Your task to perform on an android device: Go to Wikipedia Image 0: 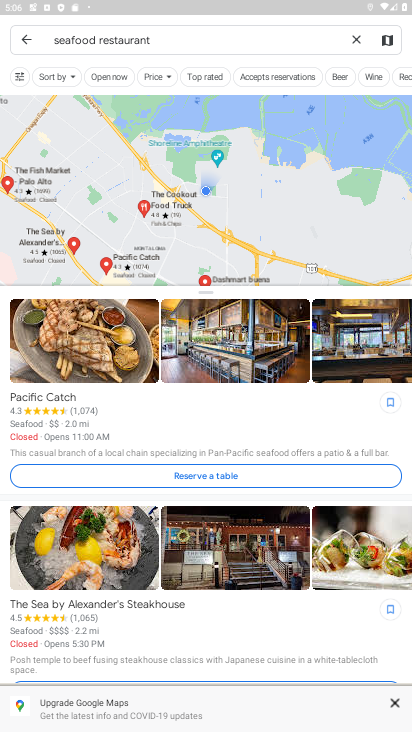
Step 0: press home button
Your task to perform on an android device: Go to Wikipedia Image 1: 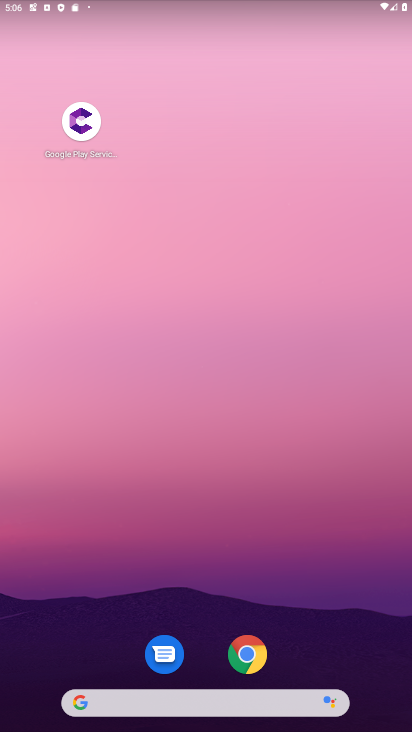
Step 1: click (243, 646)
Your task to perform on an android device: Go to Wikipedia Image 2: 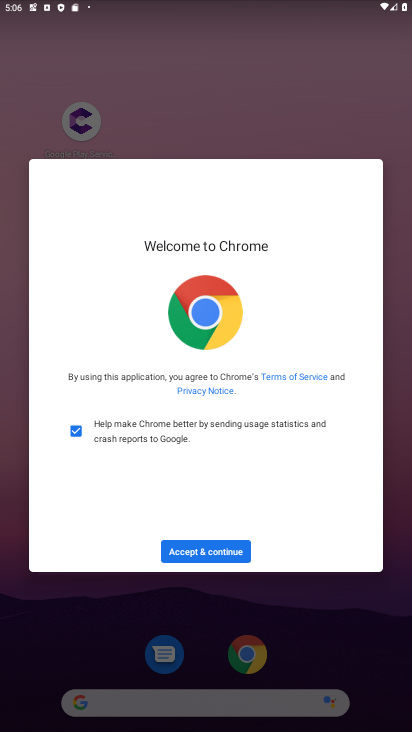
Step 2: click (200, 556)
Your task to perform on an android device: Go to Wikipedia Image 3: 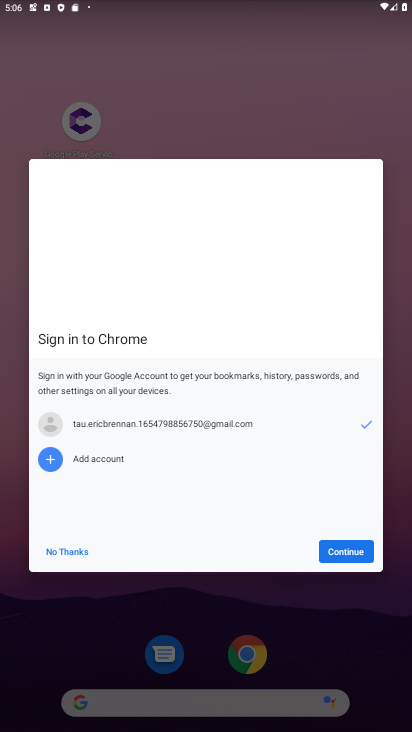
Step 3: click (354, 557)
Your task to perform on an android device: Go to Wikipedia Image 4: 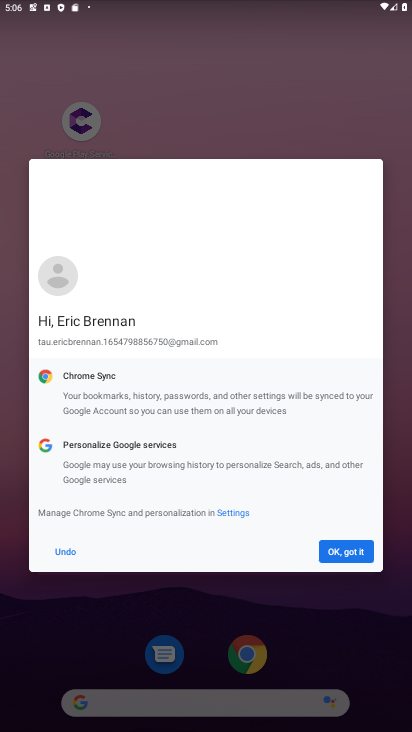
Step 4: click (354, 557)
Your task to perform on an android device: Go to Wikipedia Image 5: 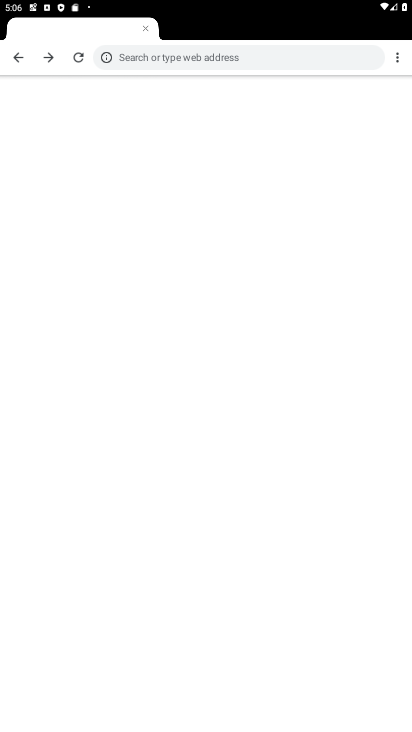
Step 5: click (354, 557)
Your task to perform on an android device: Go to Wikipedia Image 6: 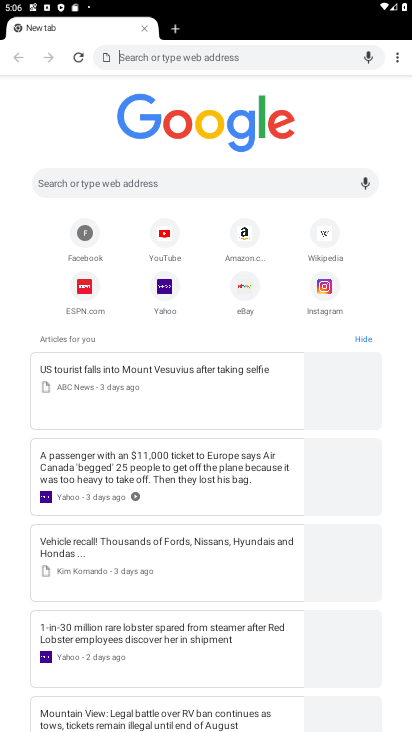
Step 6: click (320, 232)
Your task to perform on an android device: Go to Wikipedia Image 7: 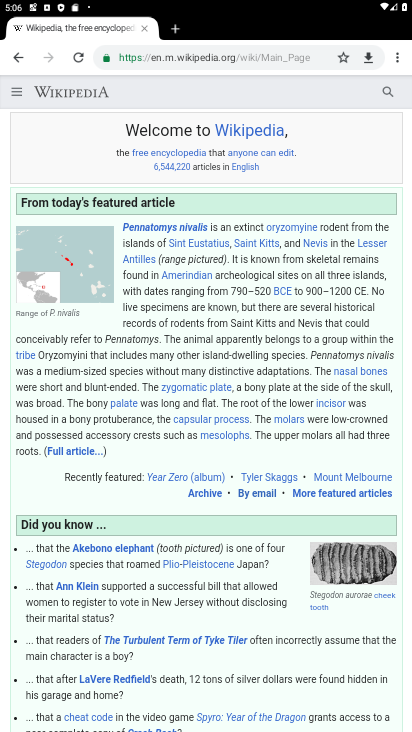
Step 7: task complete